Your task to perform on an android device: Open Chrome and go to the settings page Image 0: 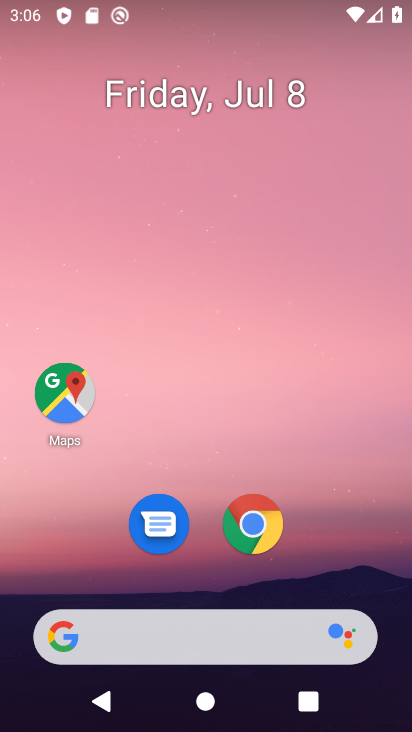
Step 0: click (262, 523)
Your task to perform on an android device: Open Chrome and go to the settings page Image 1: 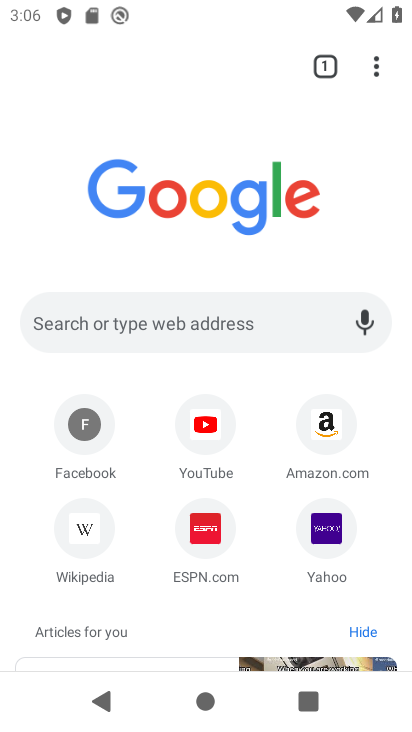
Step 1: click (378, 64)
Your task to perform on an android device: Open Chrome and go to the settings page Image 2: 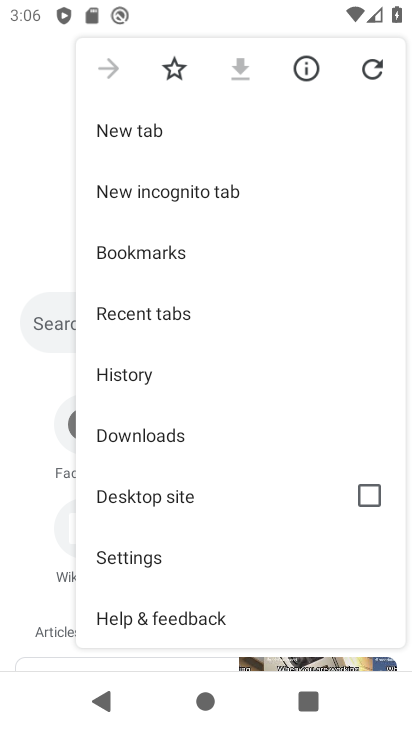
Step 2: click (152, 558)
Your task to perform on an android device: Open Chrome and go to the settings page Image 3: 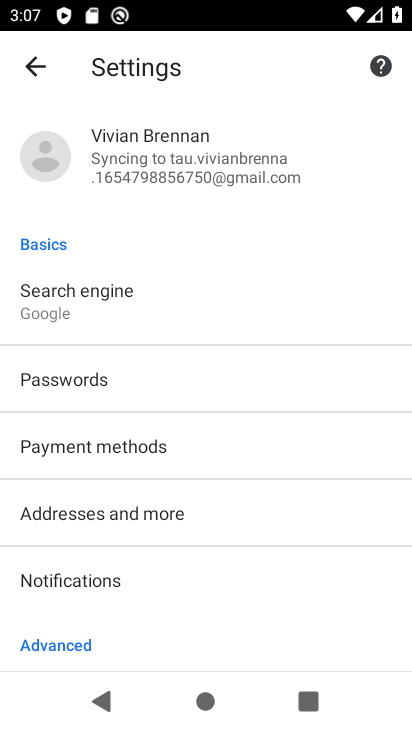
Step 3: task complete